Your task to perform on an android device: change your default location settings in chrome Image 0: 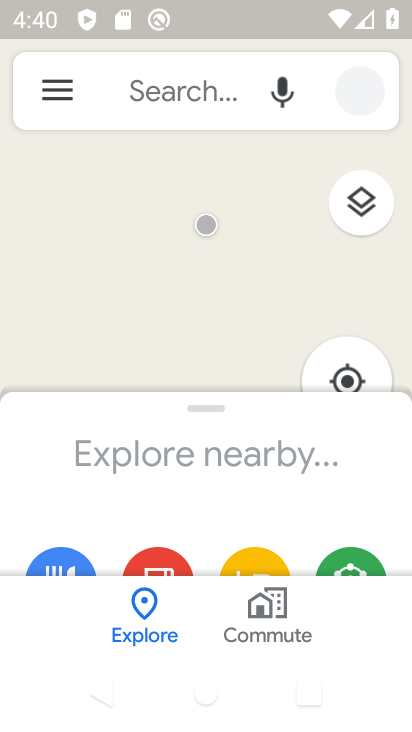
Step 0: press home button
Your task to perform on an android device: change your default location settings in chrome Image 1: 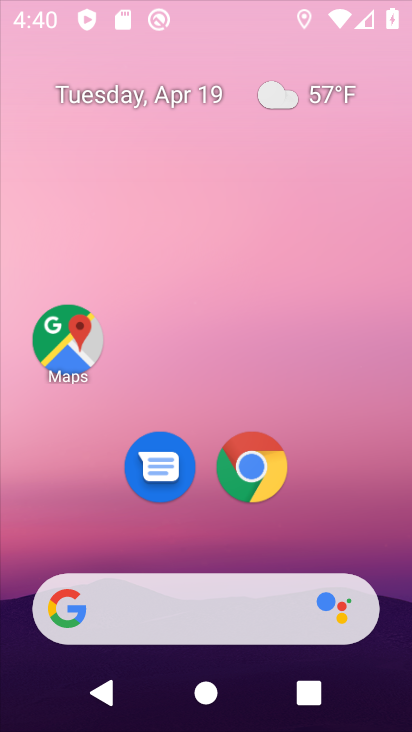
Step 1: press home button
Your task to perform on an android device: change your default location settings in chrome Image 2: 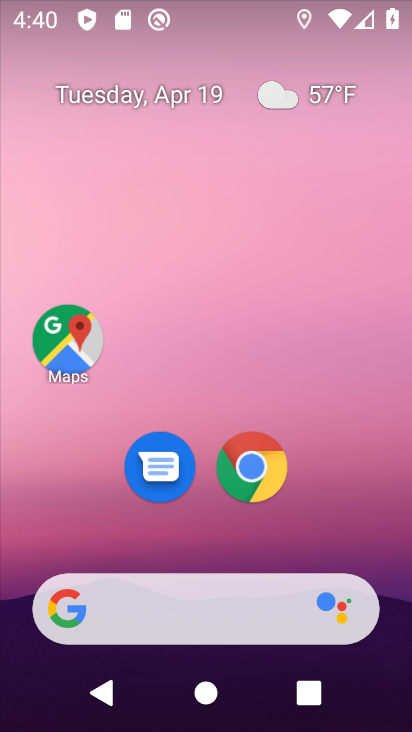
Step 2: press home button
Your task to perform on an android device: change your default location settings in chrome Image 3: 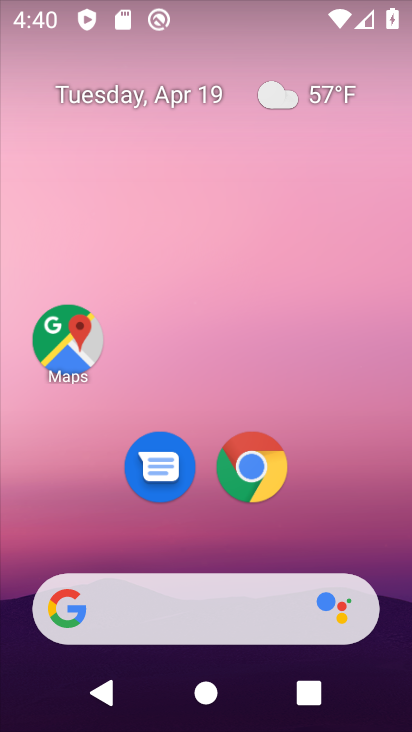
Step 3: press home button
Your task to perform on an android device: change your default location settings in chrome Image 4: 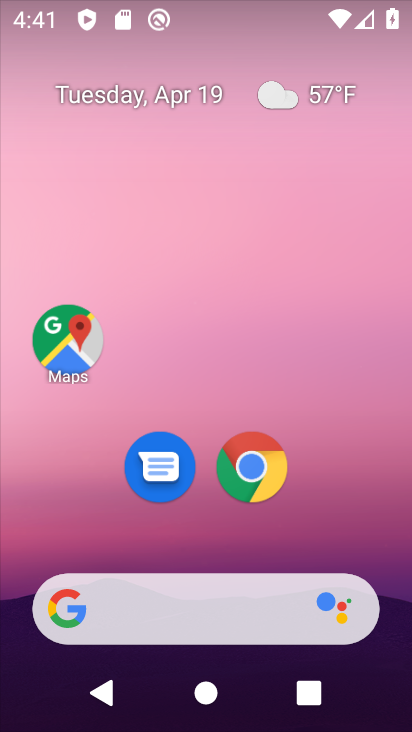
Step 4: drag from (238, 577) to (285, 228)
Your task to perform on an android device: change your default location settings in chrome Image 5: 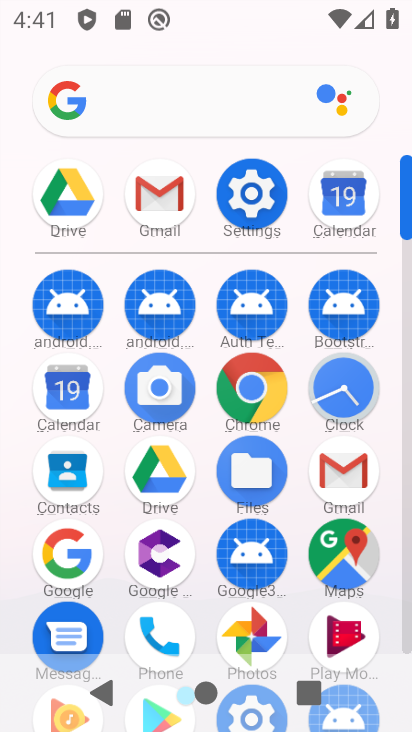
Step 5: click (253, 402)
Your task to perform on an android device: change your default location settings in chrome Image 6: 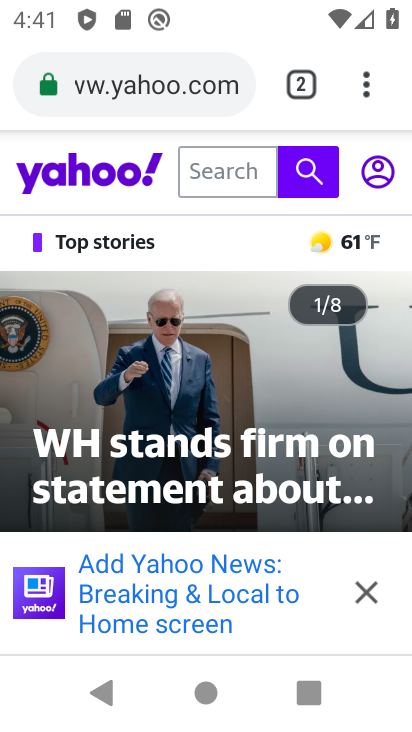
Step 6: click (371, 82)
Your task to perform on an android device: change your default location settings in chrome Image 7: 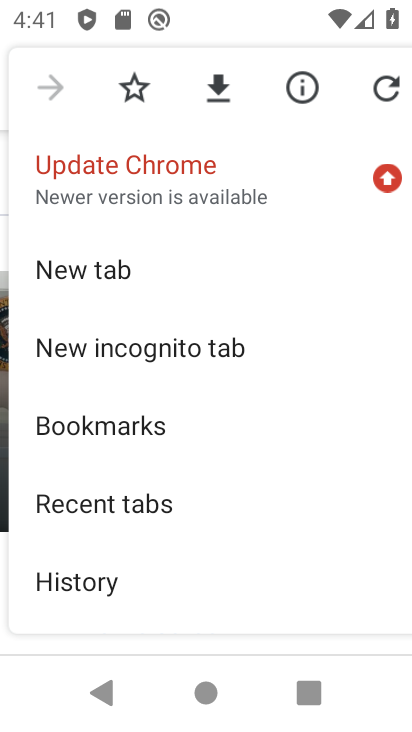
Step 7: drag from (237, 531) to (218, 205)
Your task to perform on an android device: change your default location settings in chrome Image 8: 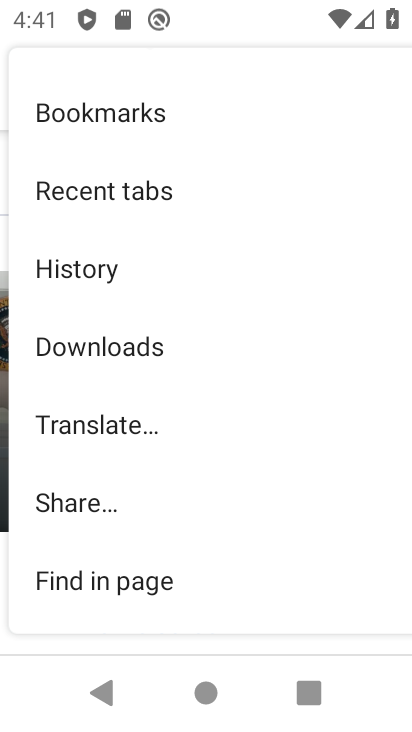
Step 8: drag from (189, 404) to (194, 272)
Your task to perform on an android device: change your default location settings in chrome Image 9: 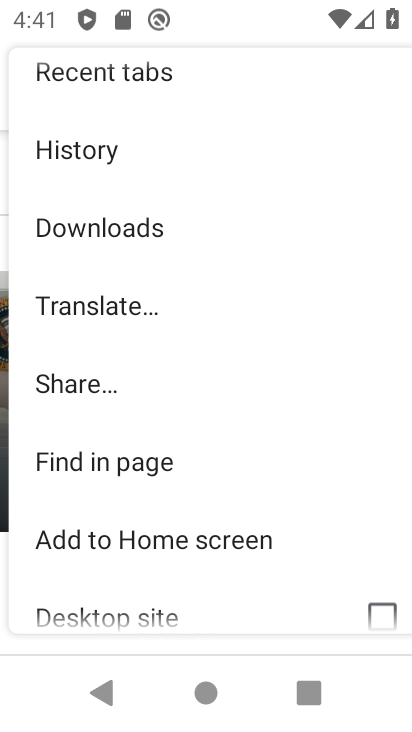
Step 9: drag from (163, 416) to (164, 266)
Your task to perform on an android device: change your default location settings in chrome Image 10: 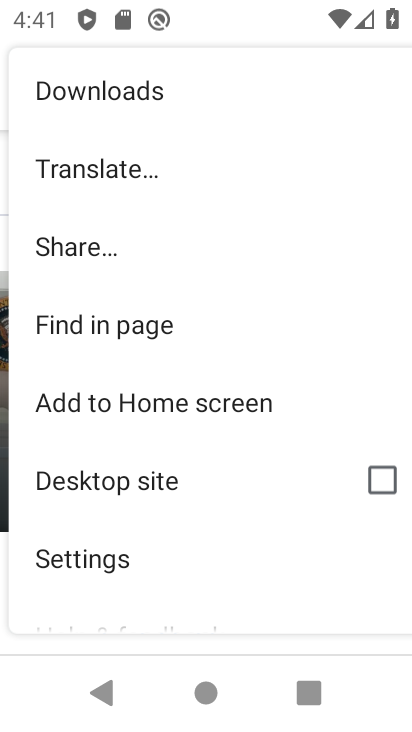
Step 10: click (104, 564)
Your task to perform on an android device: change your default location settings in chrome Image 11: 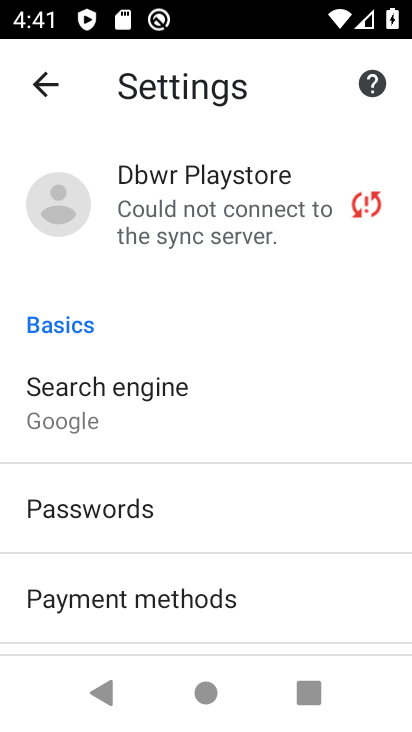
Step 11: drag from (161, 540) to (171, 314)
Your task to perform on an android device: change your default location settings in chrome Image 12: 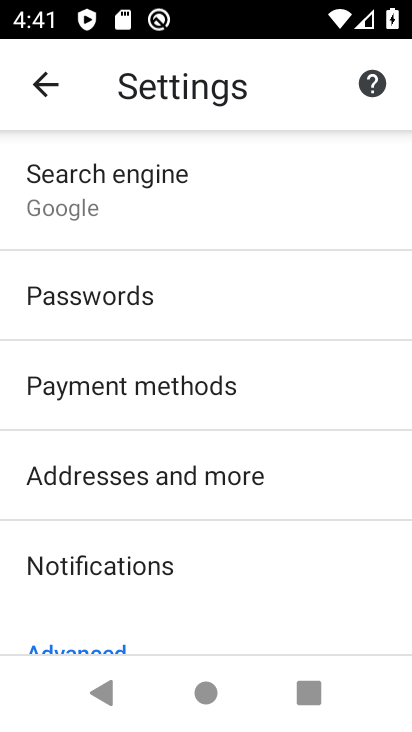
Step 12: drag from (178, 546) to (202, 293)
Your task to perform on an android device: change your default location settings in chrome Image 13: 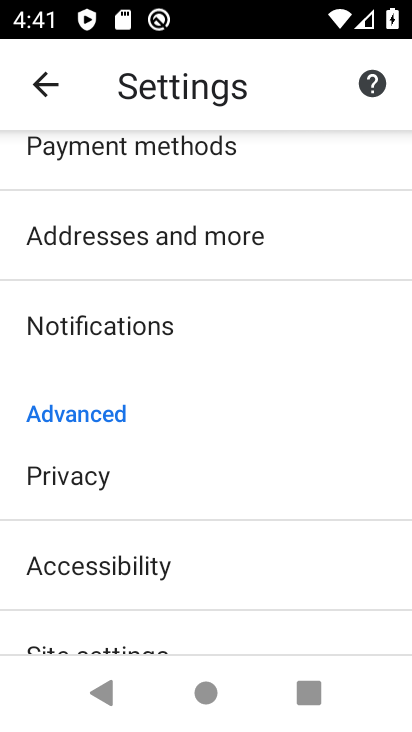
Step 13: drag from (194, 468) to (206, 297)
Your task to perform on an android device: change your default location settings in chrome Image 14: 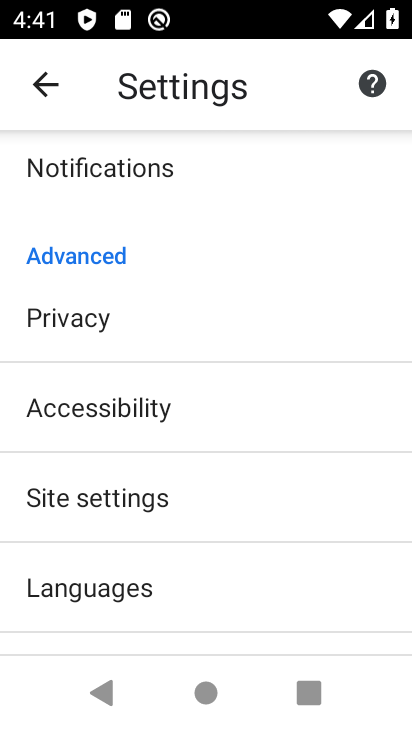
Step 14: click (186, 512)
Your task to perform on an android device: change your default location settings in chrome Image 15: 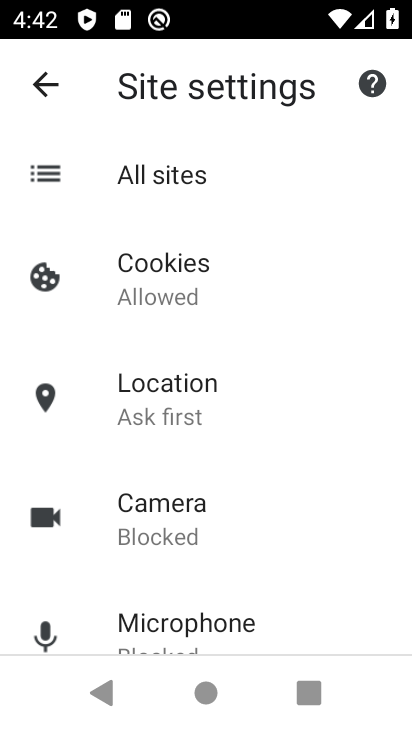
Step 15: click (208, 412)
Your task to perform on an android device: change your default location settings in chrome Image 16: 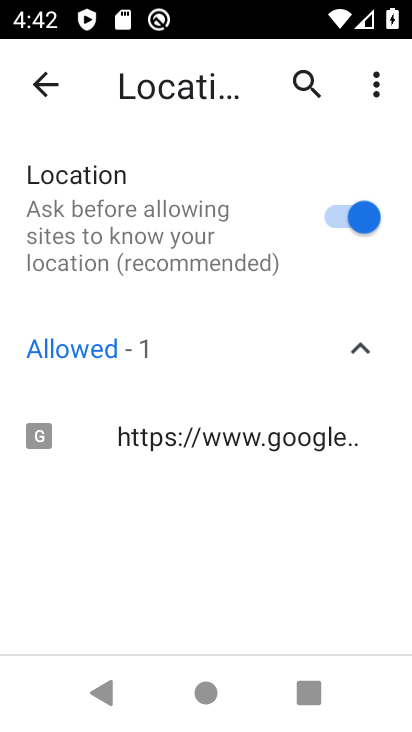
Step 16: click (355, 222)
Your task to perform on an android device: change your default location settings in chrome Image 17: 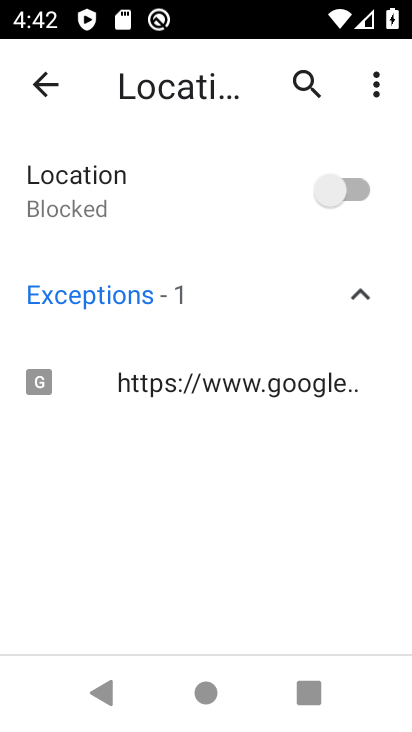
Step 17: task complete